Your task to perform on an android device: Open maps Image 0: 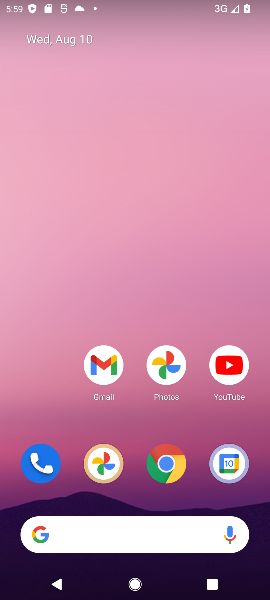
Step 0: drag from (132, 482) to (97, 10)
Your task to perform on an android device: Open maps Image 1: 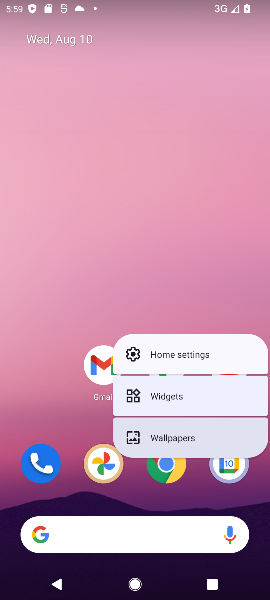
Step 1: click (185, 237)
Your task to perform on an android device: Open maps Image 2: 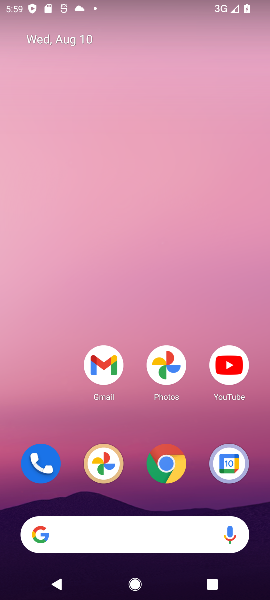
Step 2: drag from (147, 491) to (107, 67)
Your task to perform on an android device: Open maps Image 3: 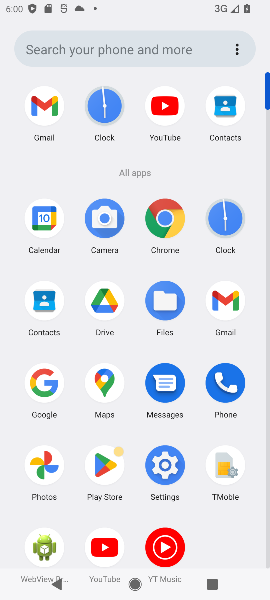
Step 3: click (106, 385)
Your task to perform on an android device: Open maps Image 4: 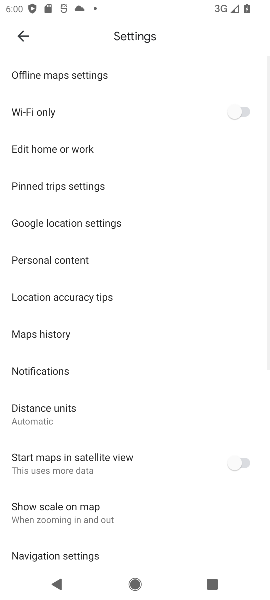
Step 4: click (23, 37)
Your task to perform on an android device: Open maps Image 5: 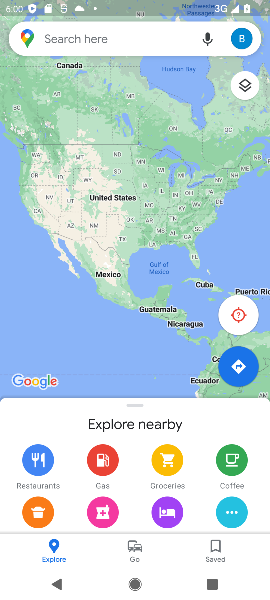
Step 5: task complete